Your task to perform on an android device: delete browsing data in the chrome app Image 0: 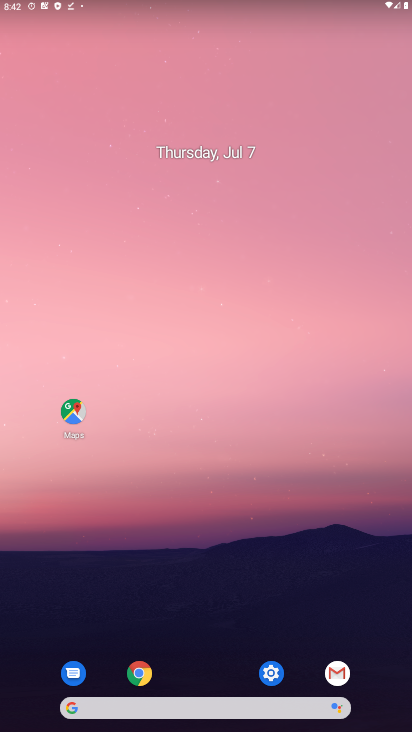
Step 0: drag from (265, 672) to (183, 280)
Your task to perform on an android device: delete browsing data in the chrome app Image 1: 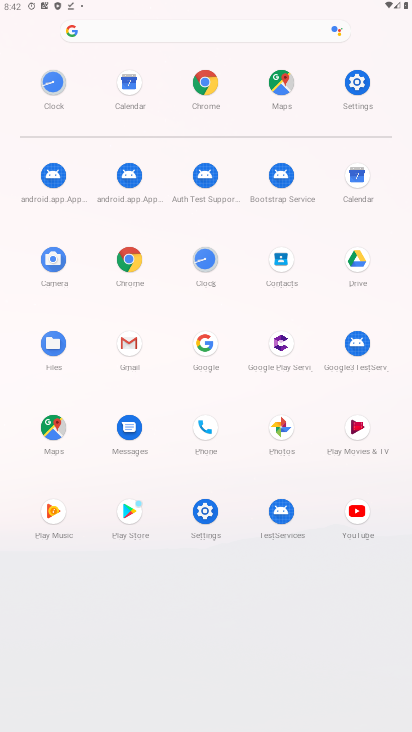
Step 1: click (139, 254)
Your task to perform on an android device: delete browsing data in the chrome app Image 2: 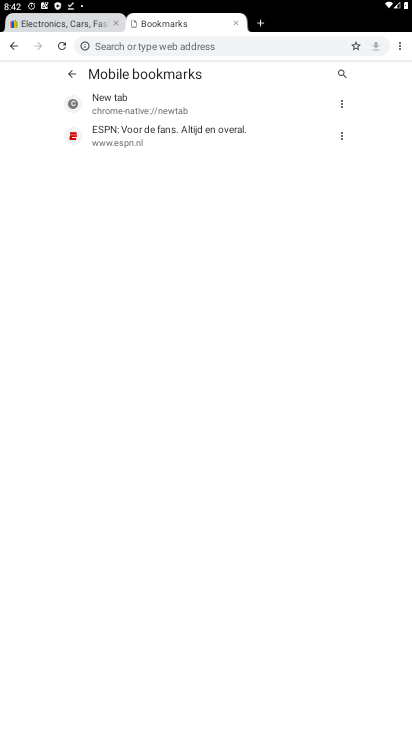
Step 2: click (400, 46)
Your task to perform on an android device: delete browsing data in the chrome app Image 3: 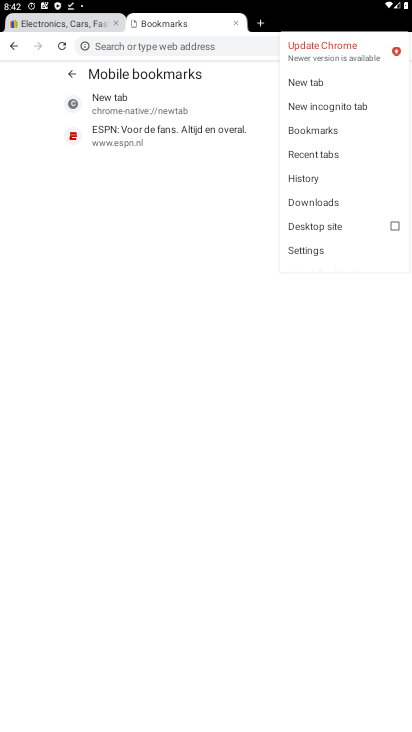
Step 3: click (303, 243)
Your task to perform on an android device: delete browsing data in the chrome app Image 4: 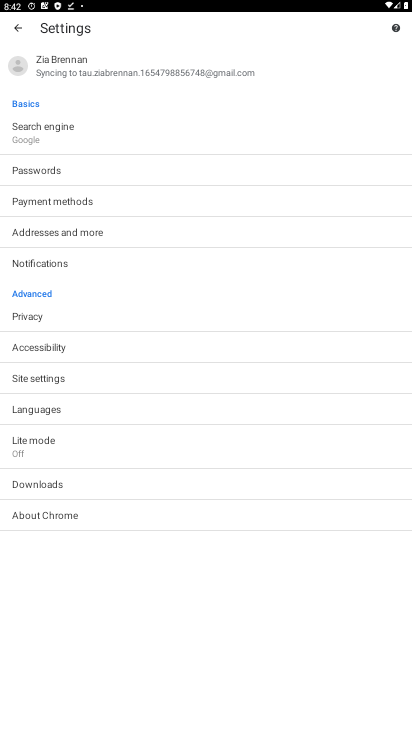
Step 4: click (60, 314)
Your task to perform on an android device: delete browsing data in the chrome app Image 5: 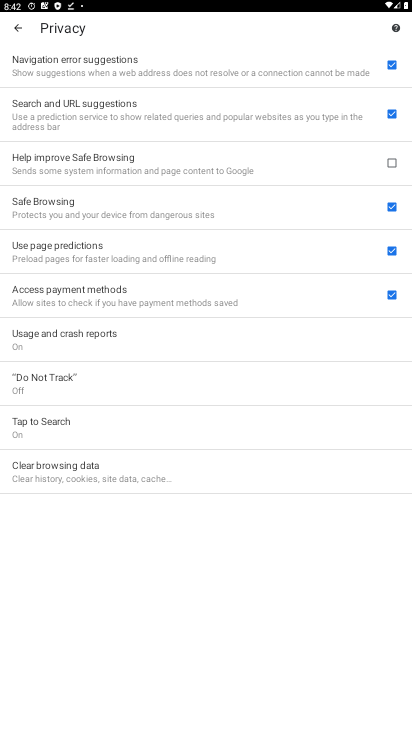
Step 5: click (50, 453)
Your task to perform on an android device: delete browsing data in the chrome app Image 6: 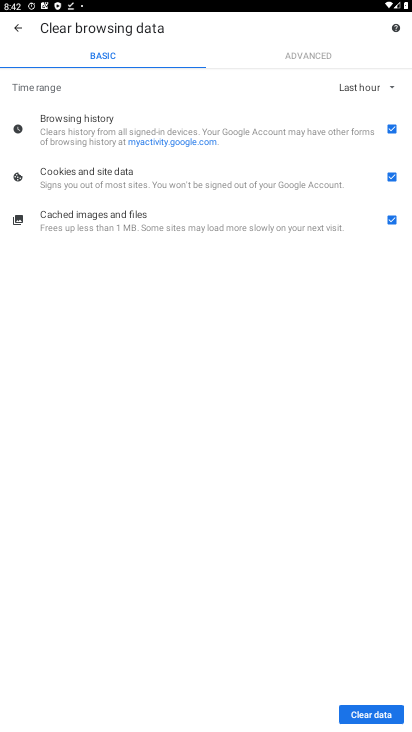
Step 6: click (353, 707)
Your task to perform on an android device: delete browsing data in the chrome app Image 7: 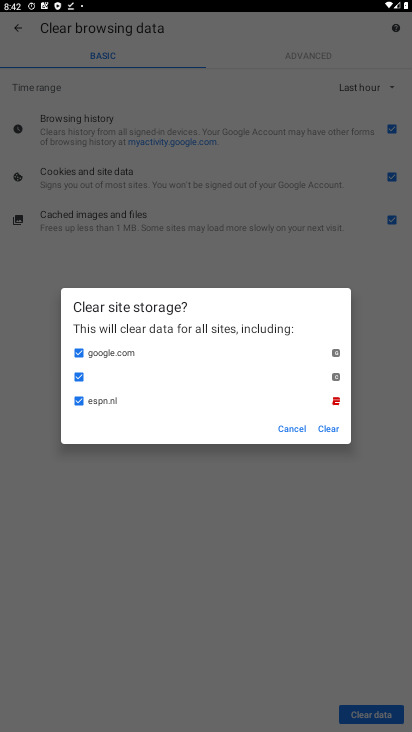
Step 7: click (326, 429)
Your task to perform on an android device: delete browsing data in the chrome app Image 8: 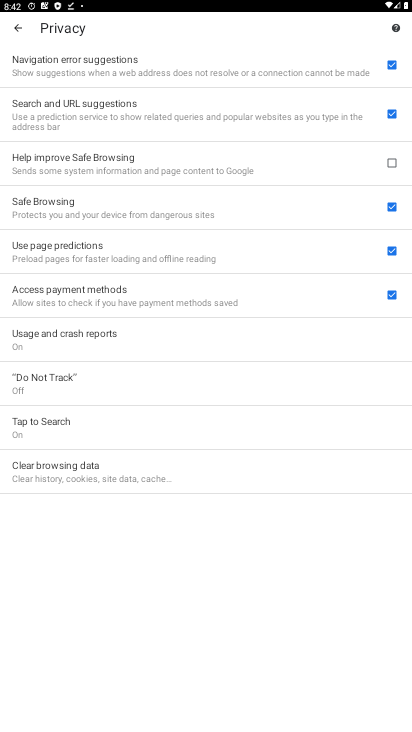
Step 8: task complete